Your task to perform on an android device: See recent photos Image 0: 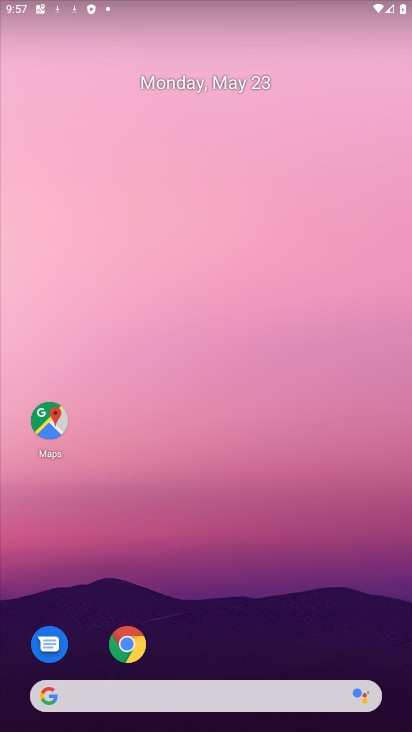
Step 0: drag from (179, 702) to (206, 223)
Your task to perform on an android device: See recent photos Image 1: 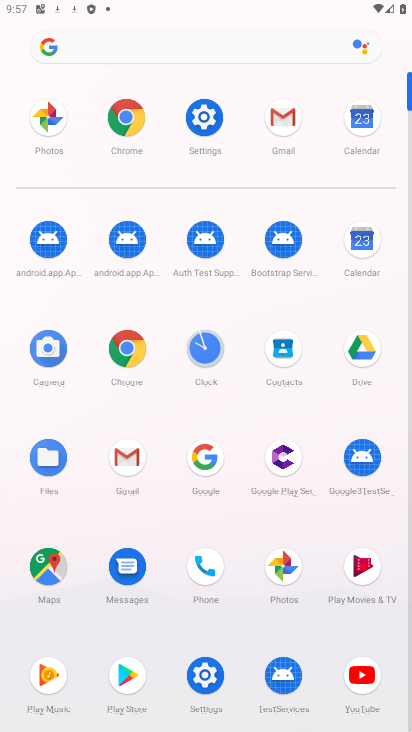
Step 1: click (279, 581)
Your task to perform on an android device: See recent photos Image 2: 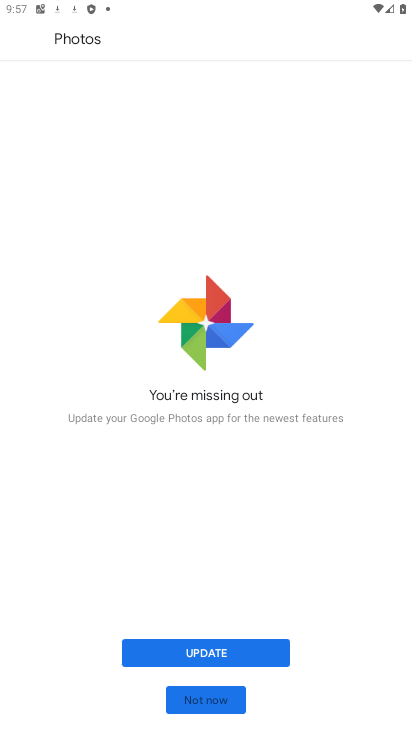
Step 2: click (240, 648)
Your task to perform on an android device: See recent photos Image 3: 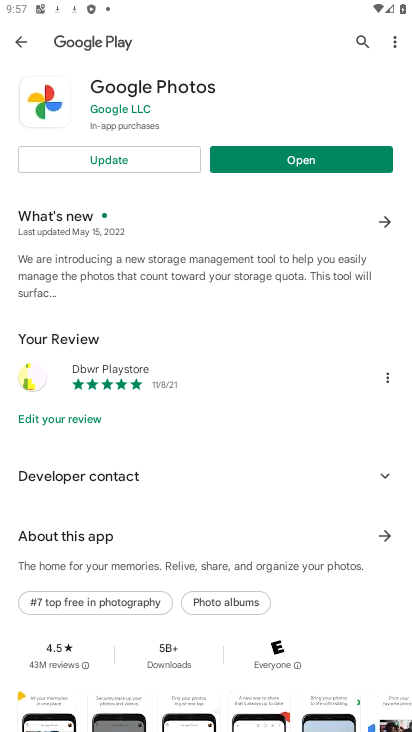
Step 3: click (272, 157)
Your task to perform on an android device: See recent photos Image 4: 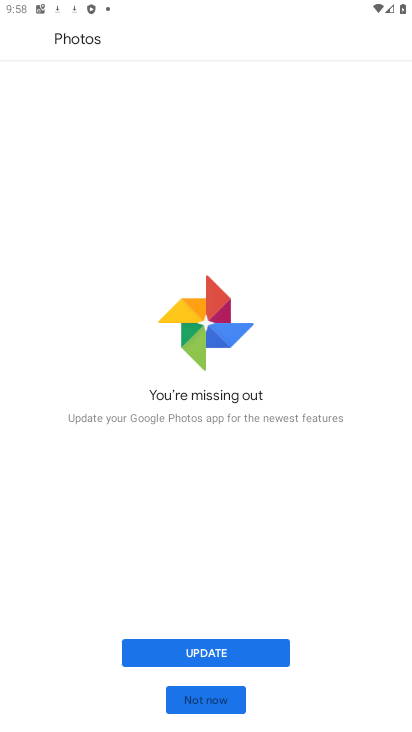
Step 4: click (203, 653)
Your task to perform on an android device: See recent photos Image 5: 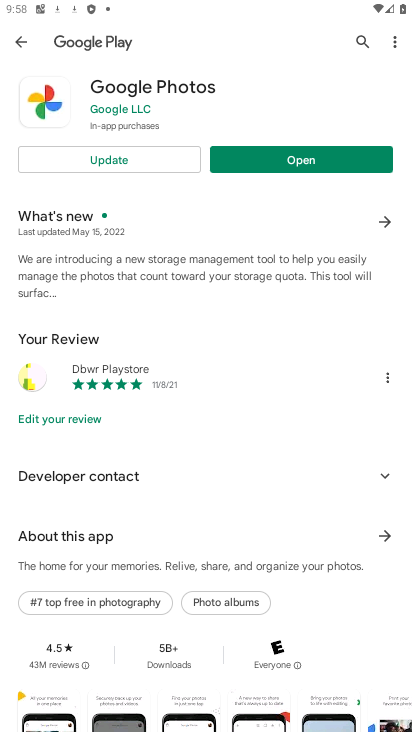
Step 5: click (90, 160)
Your task to perform on an android device: See recent photos Image 6: 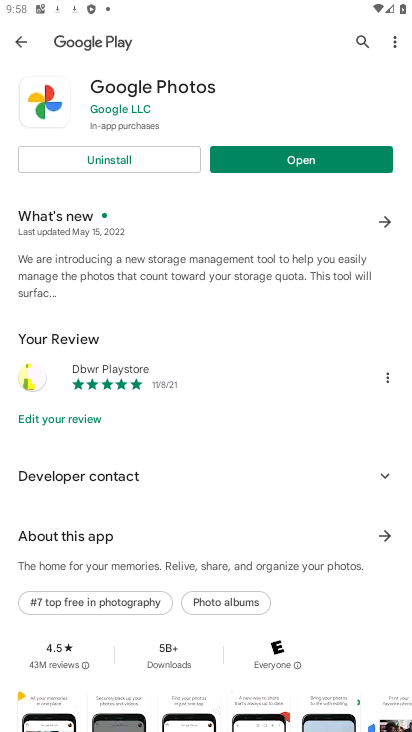
Step 6: click (264, 163)
Your task to perform on an android device: See recent photos Image 7: 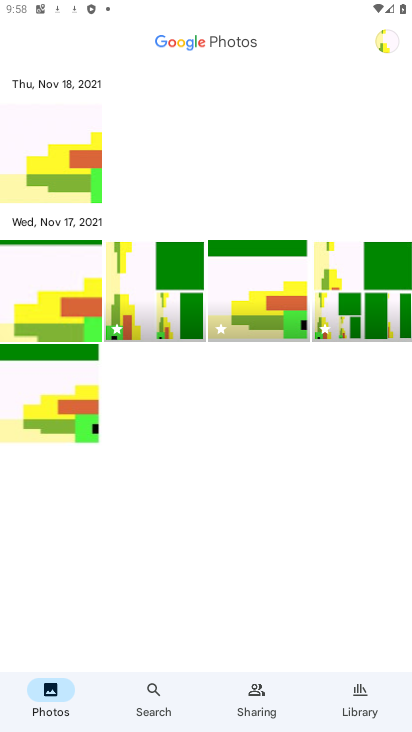
Step 7: task complete